Your task to perform on an android device: What's the weather going to be tomorrow? Image 0: 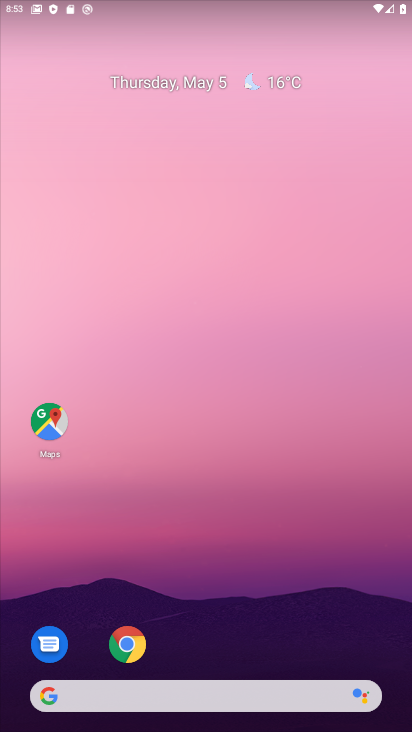
Step 0: click (168, 695)
Your task to perform on an android device: What's the weather going to be tomorrow? Image 1: 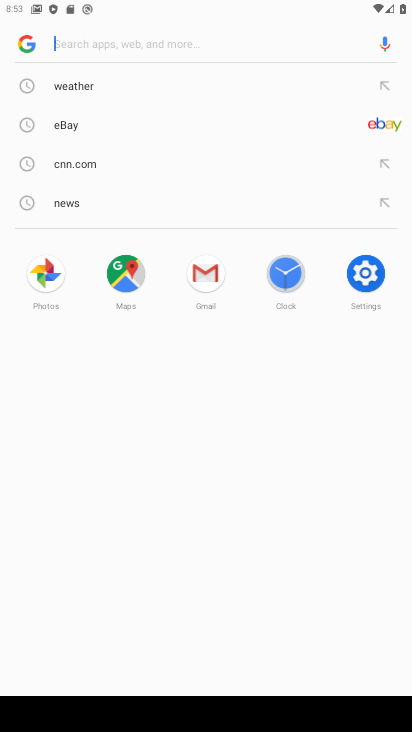
Step 1: type "What's the weather going to be tomorrow?"
Your task to perform on an android device: What's the weather going to be tomorrow? Image 2: 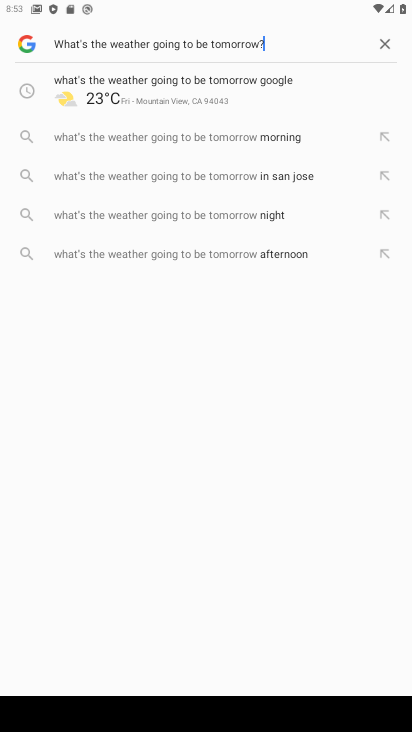
Step 2: click (192, 89)
Your task to perform on an android device: What's the weather going to be tomorrow? Image 3: 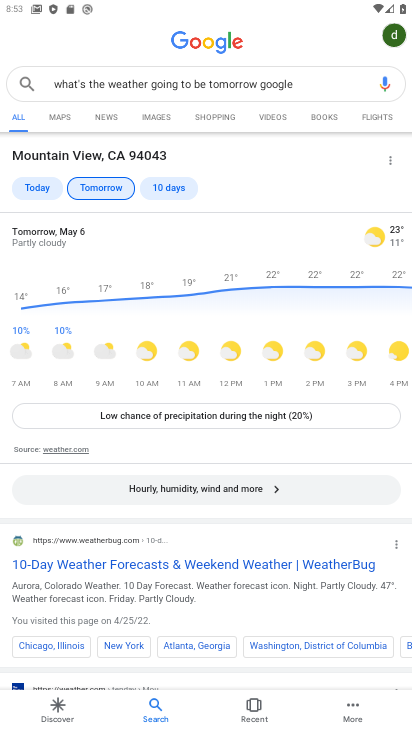
Step 3: task complete